Your task to perform on an android device: What is the capital of Spain? Image 0: 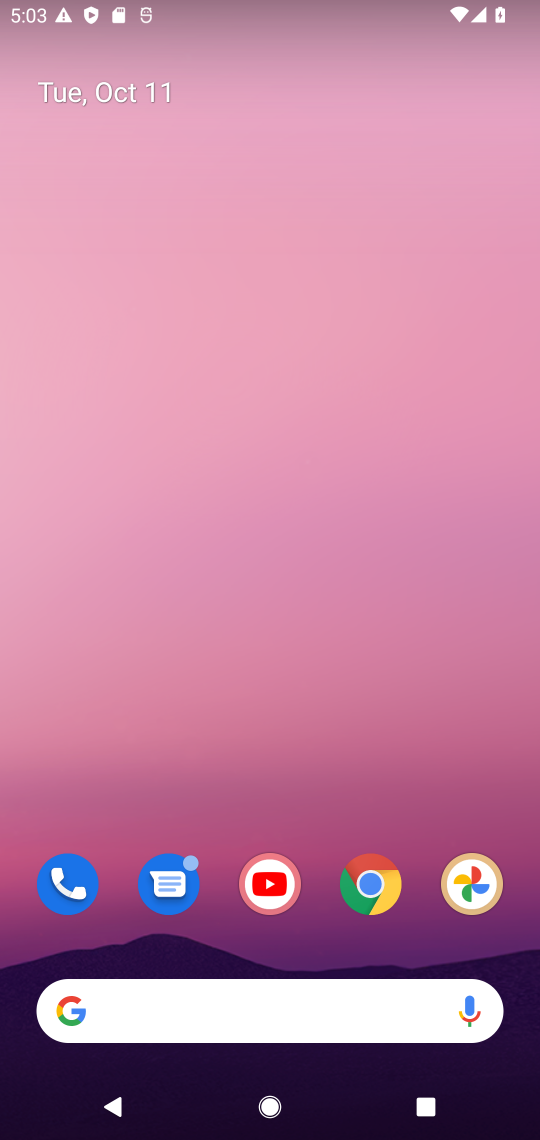
Step 0: drag from (307, 903) to (300, 112)
Your task to perform on an android device: What is the capital of Spain? Image 1: 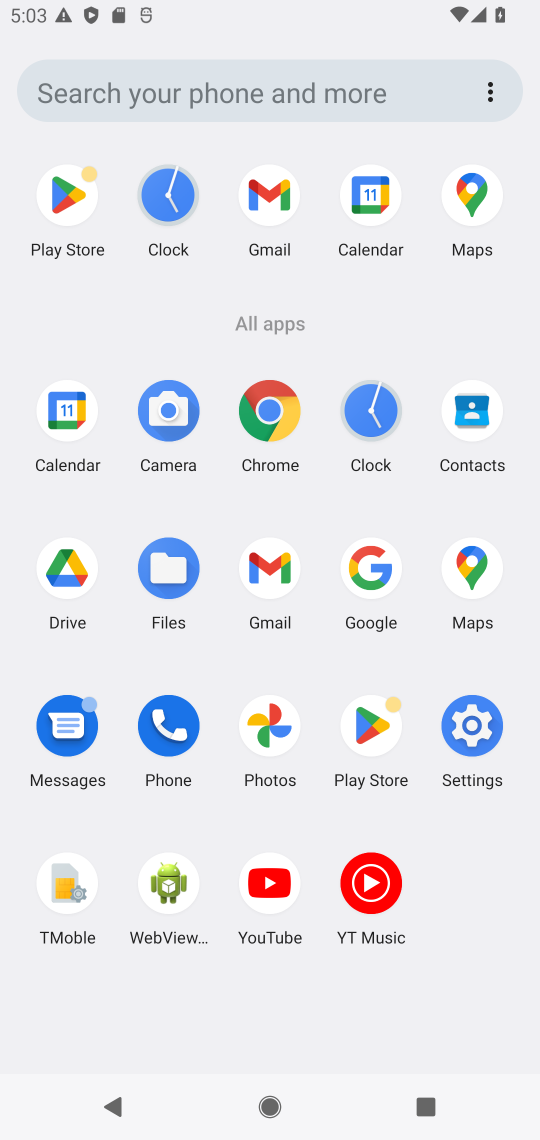
Step 1: click (271, 410)
Your task to perform on an android device: What is the capital of Spain? Image 2: 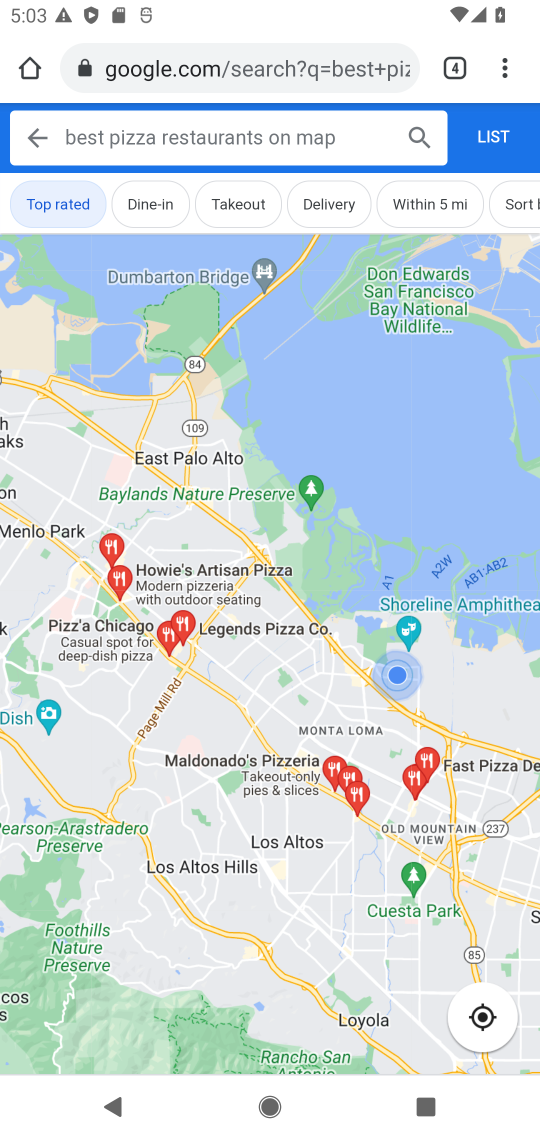
Step 2: click (505, 74)
Your task to perform on an android device: What is the capital of Spain? Image 3: 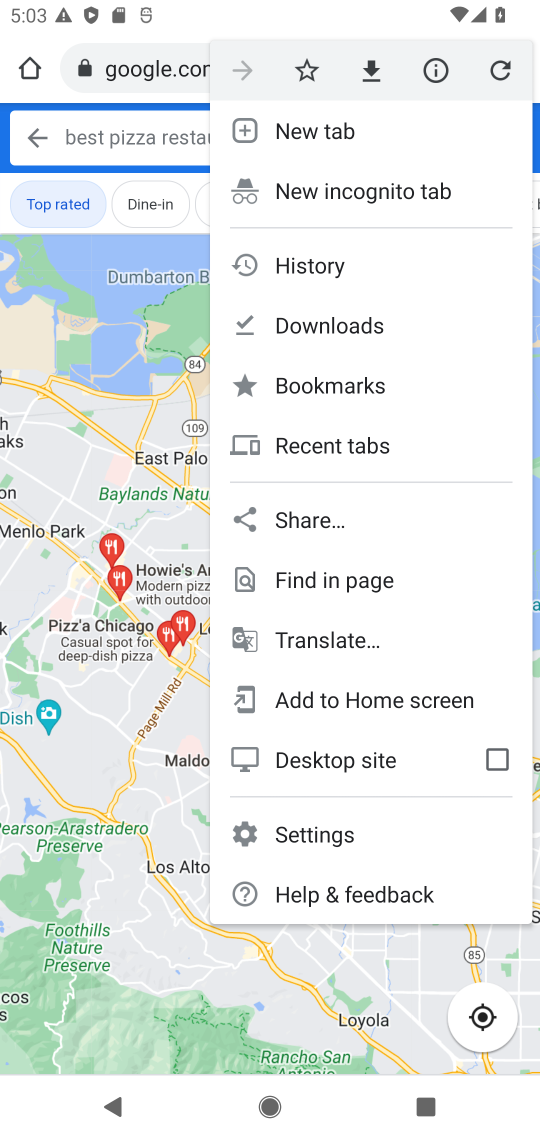
Step 3: click (326, 129)
Your task to perform on an android device: What is the capital of Spain? Image 4: 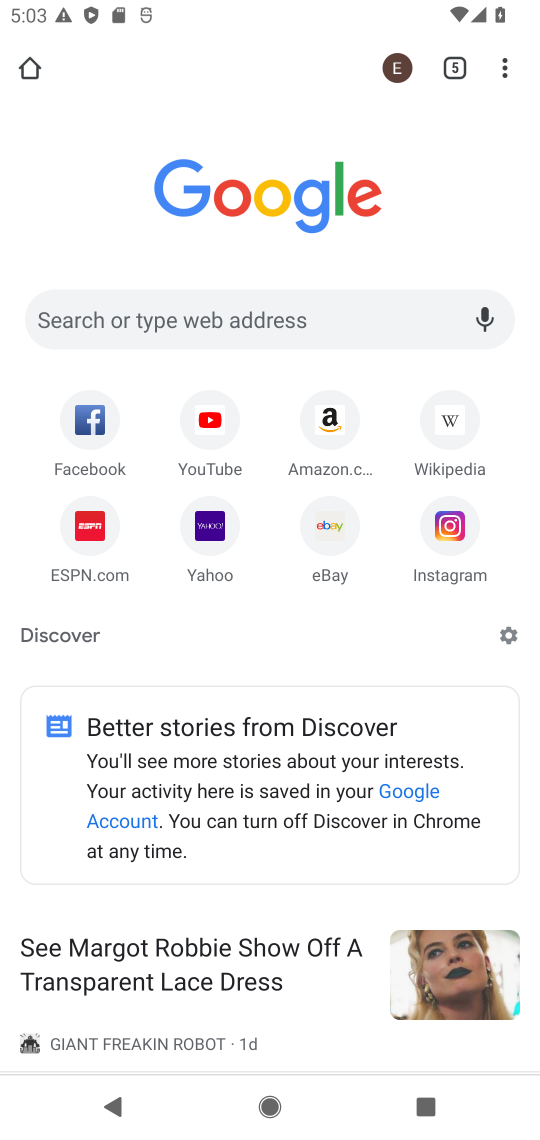
Step 4: click (182, 309)
Your task to perform on an android device: What is the capital of Spain? Image 5: 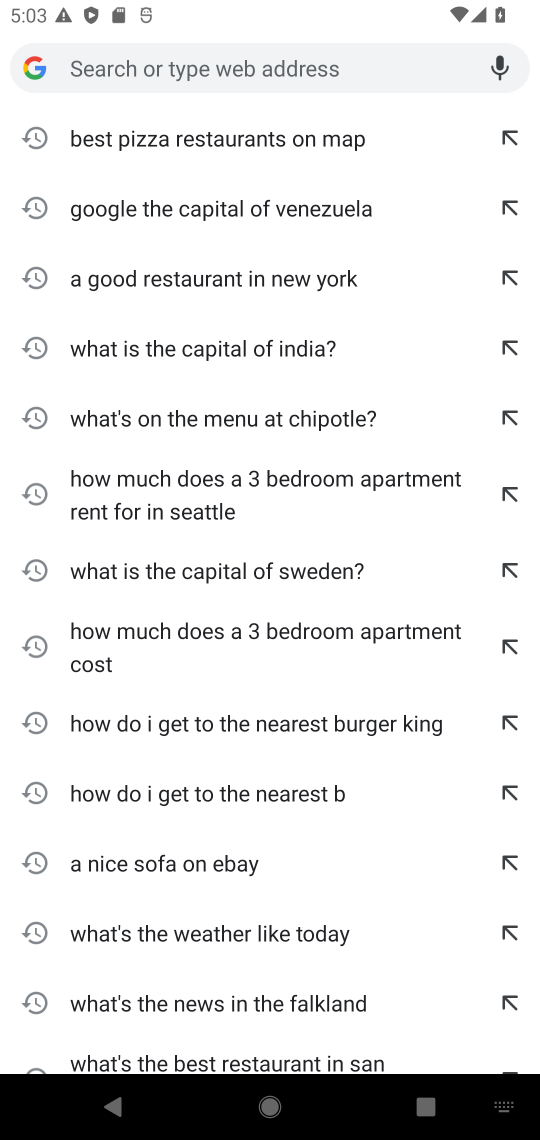
Step 5: type "What is the capital of Spain?"
Your task to perform on an android device: What is the capital of Spain? Image 6: 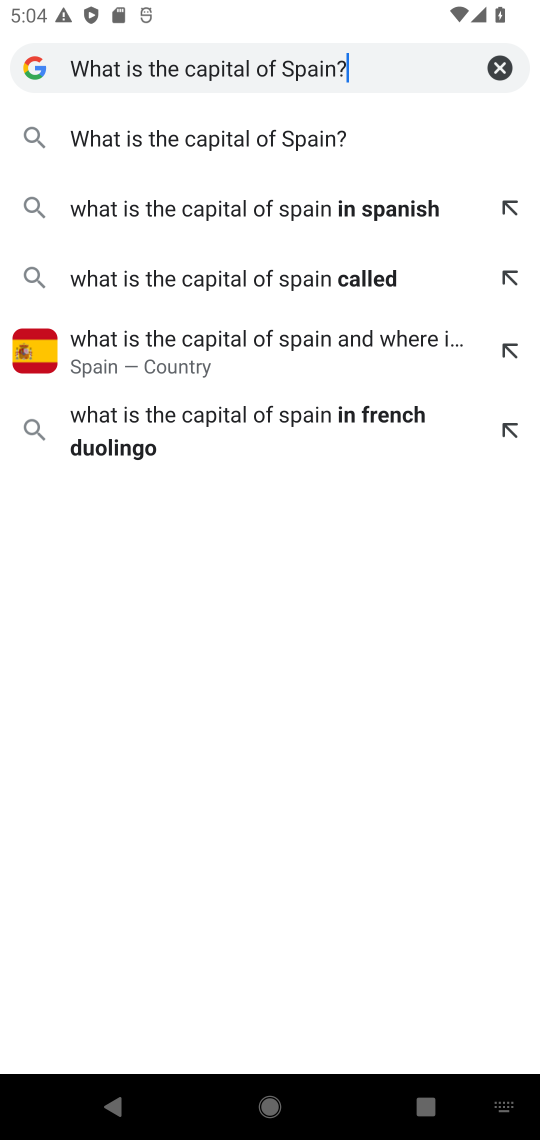
Step 6: click (272, 144)
Your task to perform on an android device: What is the capital of Spain? Image 7: 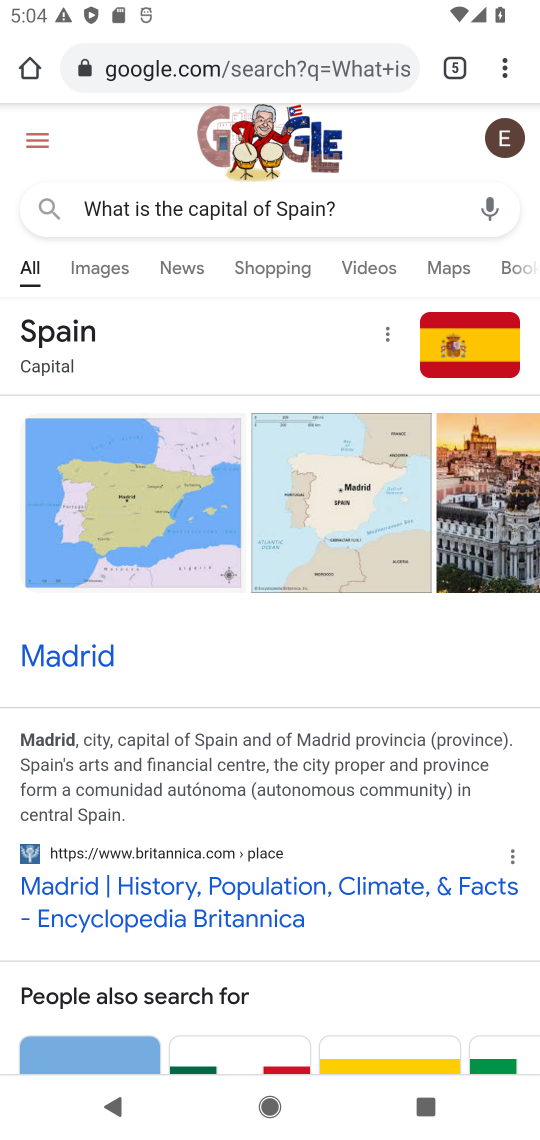
Step 7: task complete